Your task to perform on an android device: install app "Gmail" Image 0: 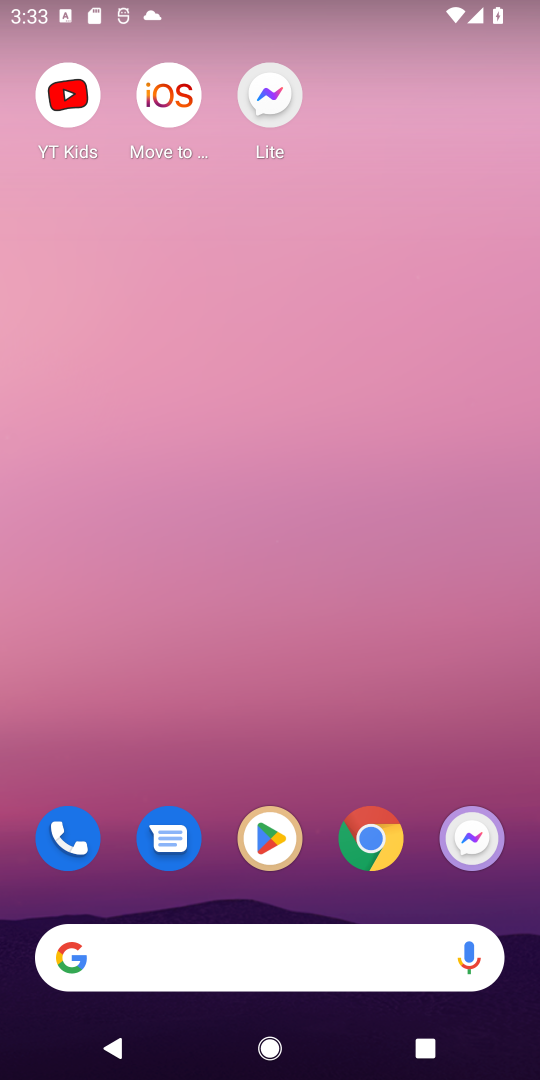
Step 0: press home button
Your task to perform on an android device: install app "Gmail" Image 1: 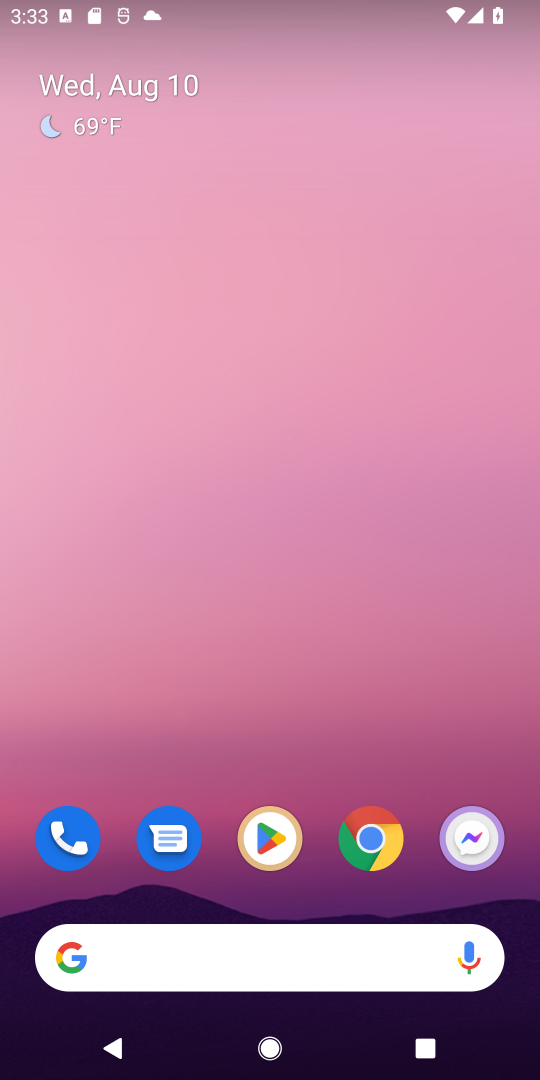
Step 1: click (271, 836)
Your task to perform on an android device: install app "Gmail" Image 2: 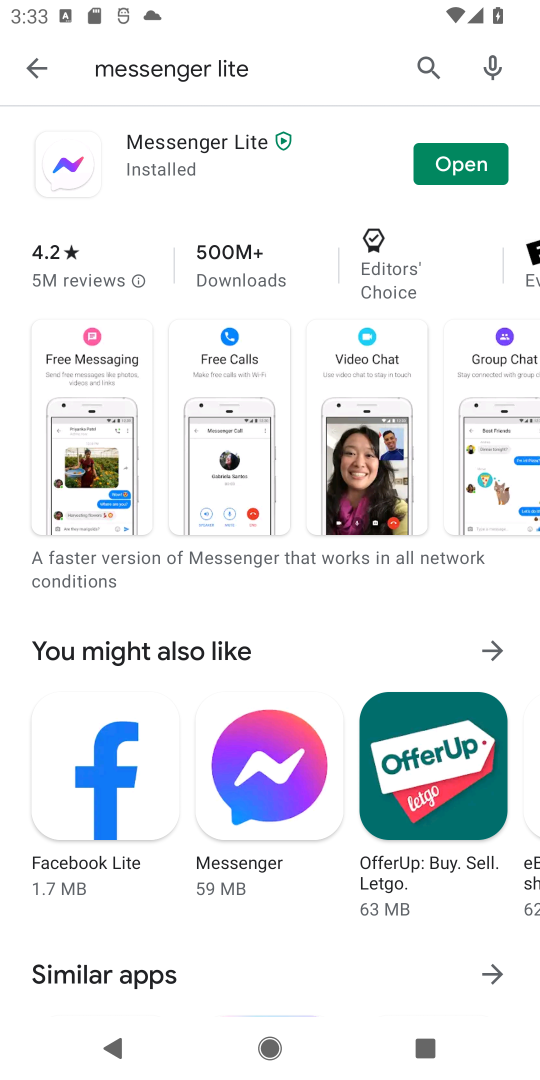
Step 2: click (430, 65)
Your task to perform on an android device: install app "Gmail" Image 3: 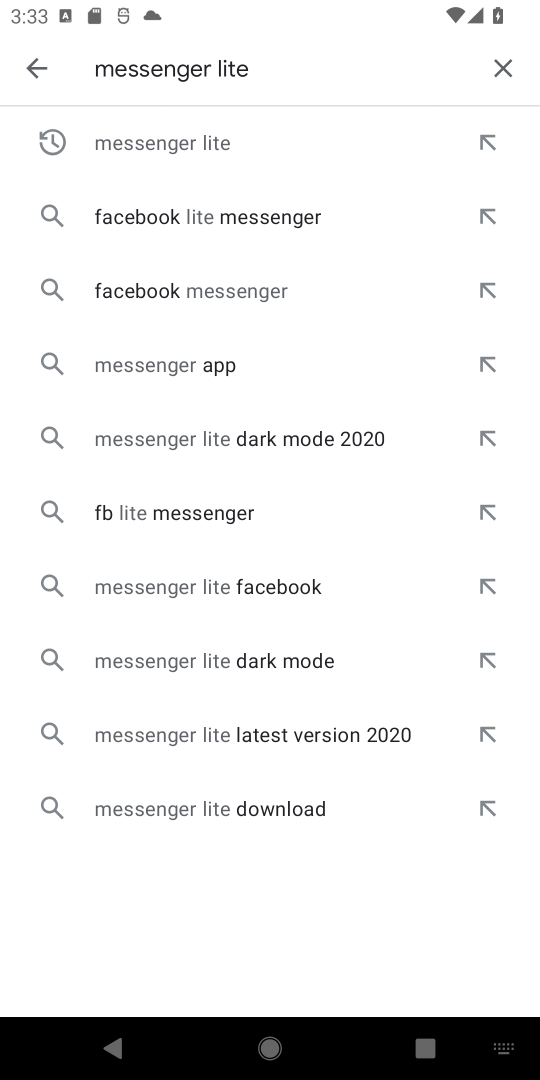
Step 3: click (502, 64)
Your task to perform on an android device: install app "Gmail" Image 4: 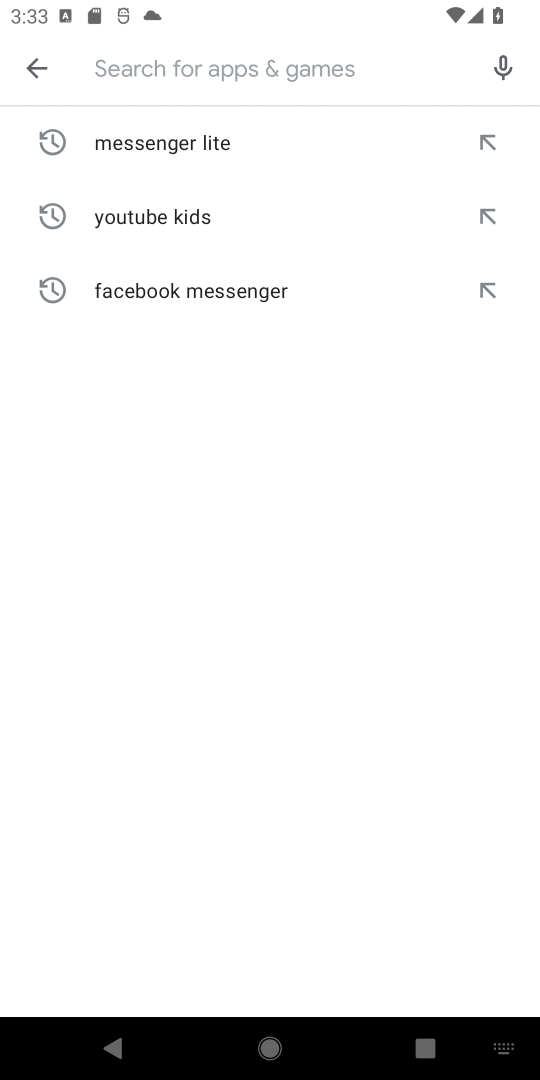
Step 4: type "Gmail"
Your task to perform on an android device: install app "Gmail" Image 5: 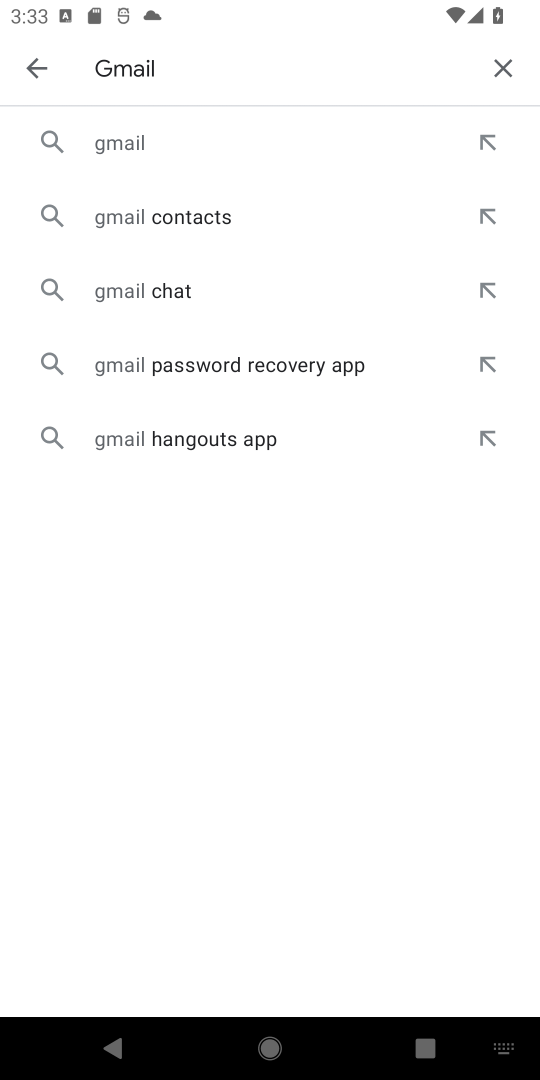
Step 5: click (113, 140)
Your task to perform on an android device: install app "Gmail" Image 6: 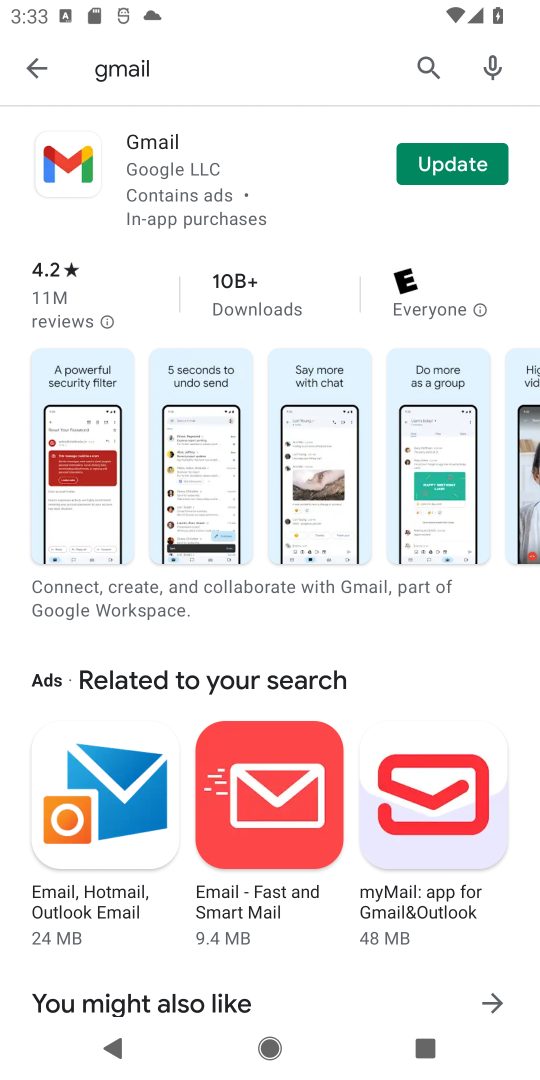
Step 6: click (189, 176)
Your task to perform on an android device: install app "Gmail" Image 7: 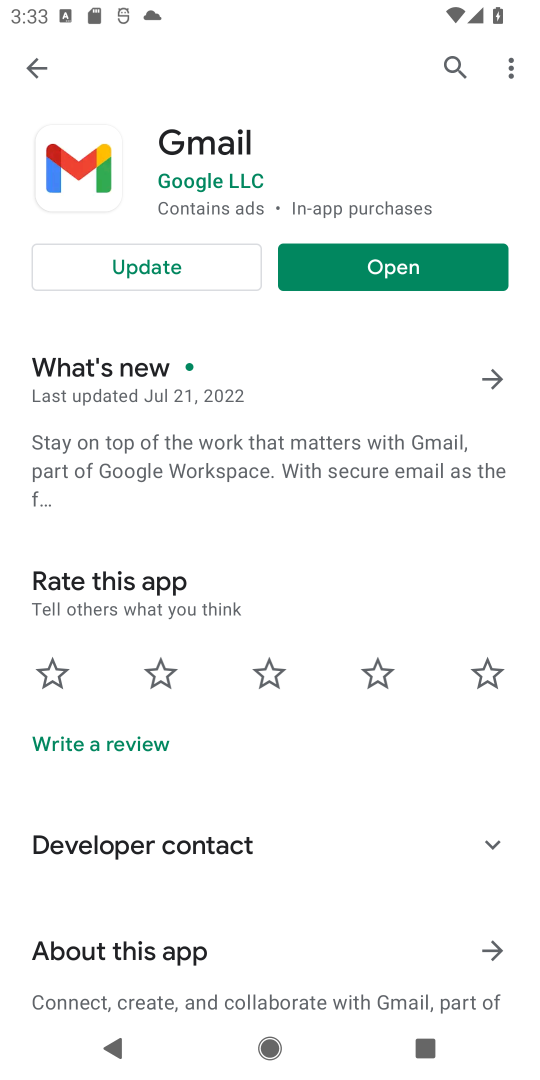
Step 7: task complete